Your task to perform on an android device: toggle airplane mode Image 0: 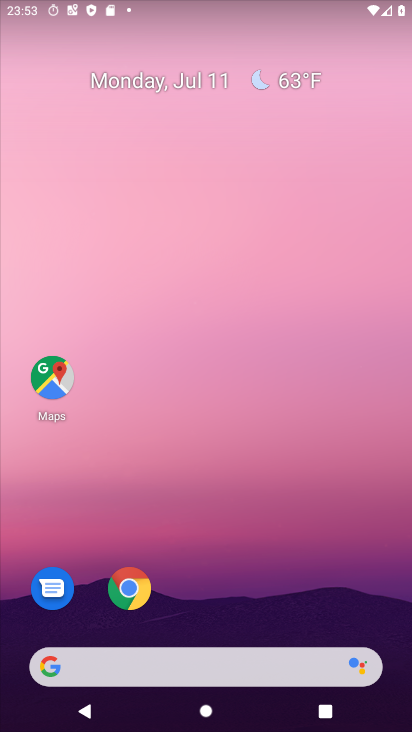
Step 0: drag from (250, 731) to (239, 144)
Your task to perform on an android device: toggle airplane mode Image 1: 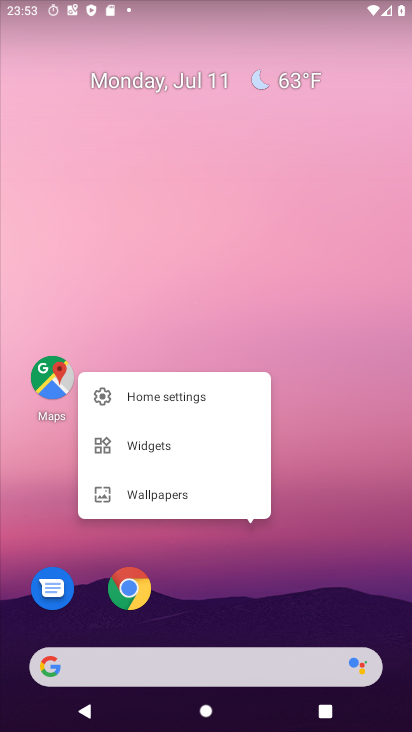
Step 1: click (263, 239)
Your task to perform on an android device: toggle airplane mode Image 2: 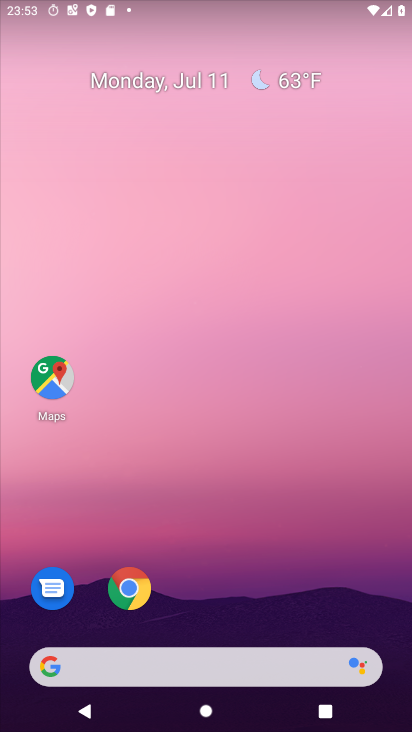
Step 2: drag from (238, 724) to (232, 131)
Your task to perform on an android device: toggle airplane mode Image 3: 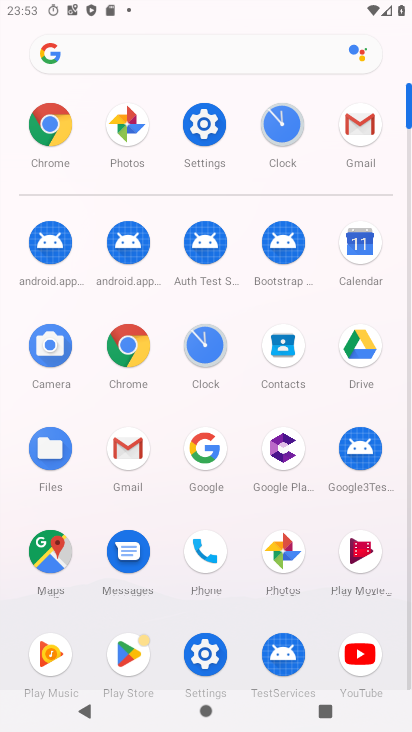
Step 3: click (204, 127)
Your task to perform on an android device: toggle airplane mode Image 4: 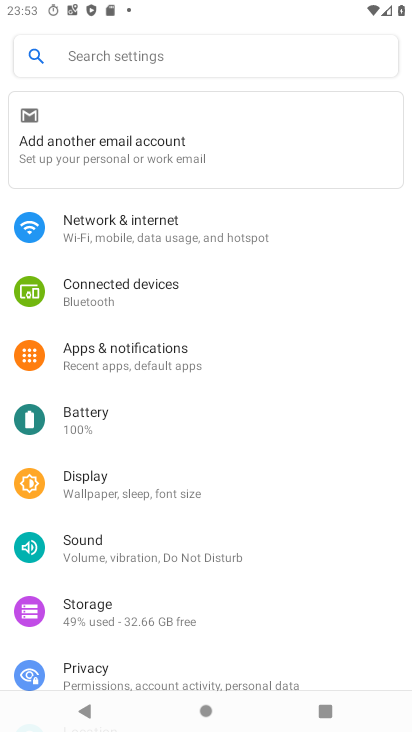
Step 4: click (118, 227)
Your task to perform on an android device: toggle airplane mode Image 5: 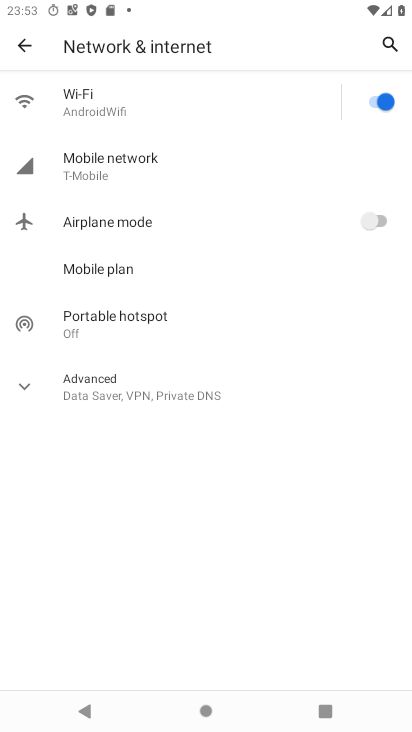
Step 5: click (376, 223)
Your task to perform on an android device: toggle airplane mode Image 6: 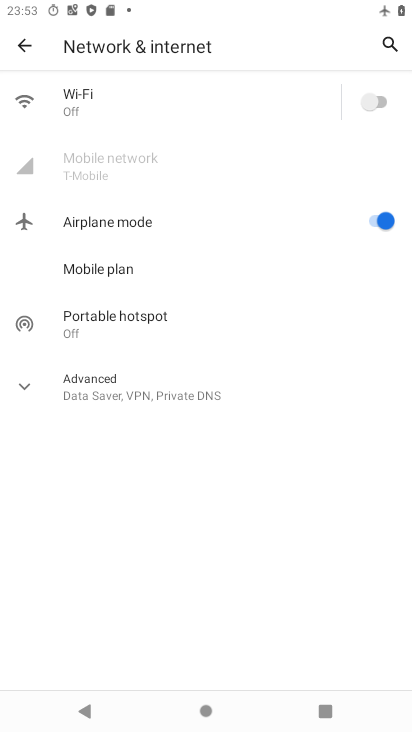
Step 6: task complete